Your task to perform on an android device: open device folders in google photos Image 0: 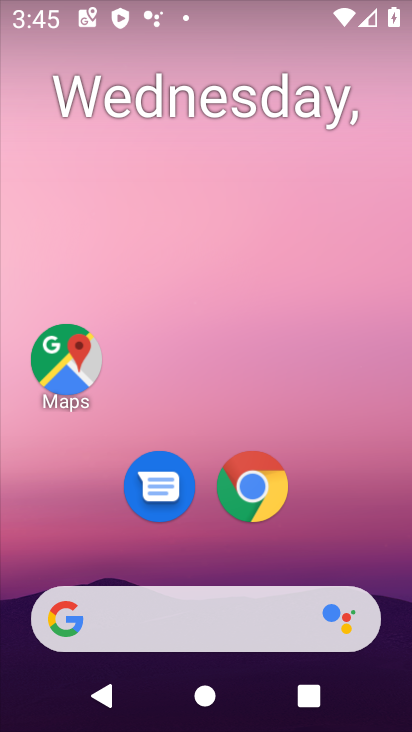
Step 0: drag from (238, 561) to (242, 181)
Your task to perform on an android device: open device folders in google photos Image 1: 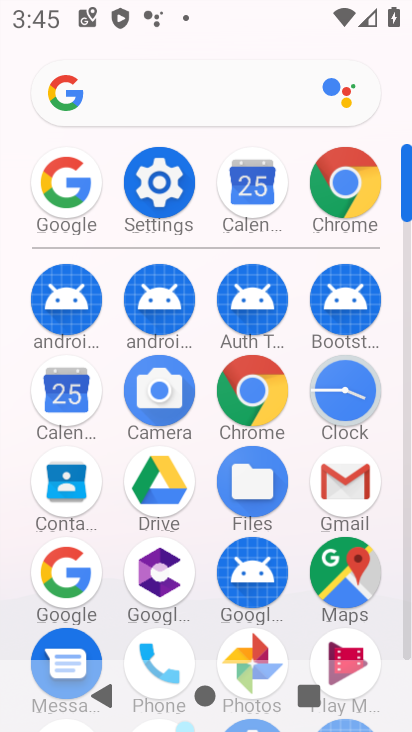
Step 1: click (277, 653)
Your task to perform on an android device: open device folders in google photos Image 2: 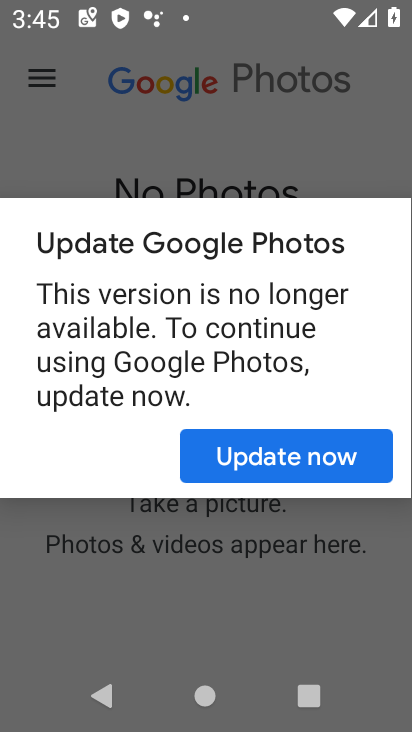
Step 2: click (232, 452)
Your task to perform on an android device: open device folders in google photos Image 3: 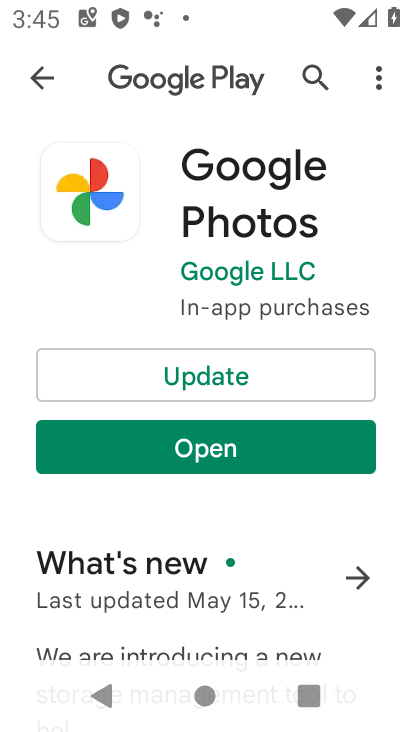
Step 3: click (209, 381)
Your task to perform on an android device: open device folders in google photos Image 4: 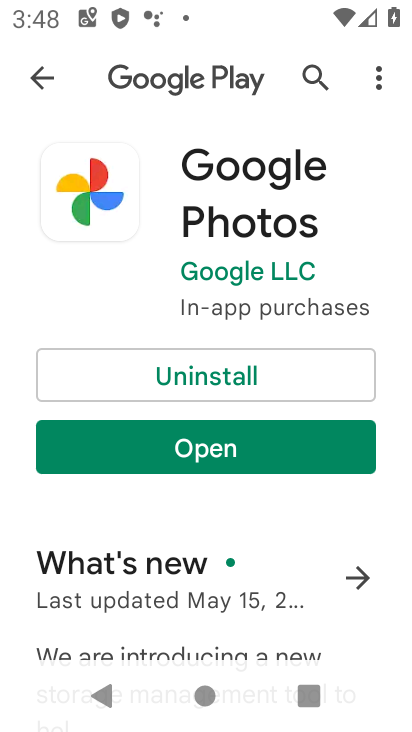
Step 4: click (220, 452)
Your task to perform on an android device: open device folders in google photos Image 5: 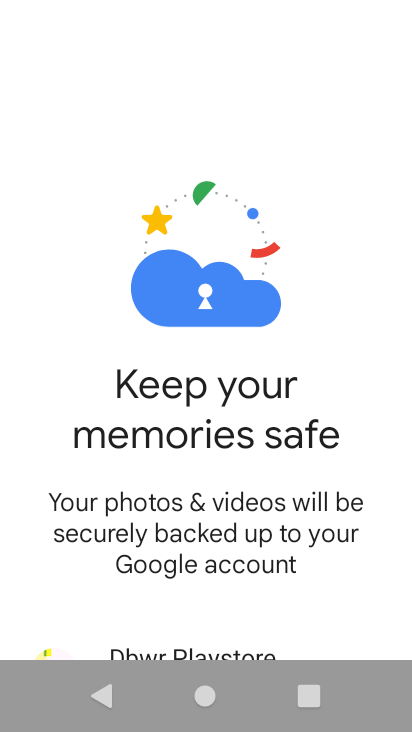
Step 5: drag from (202, 630) to (310, 134)
Your task to perform on an android device: open device folders in google photos Image 6: 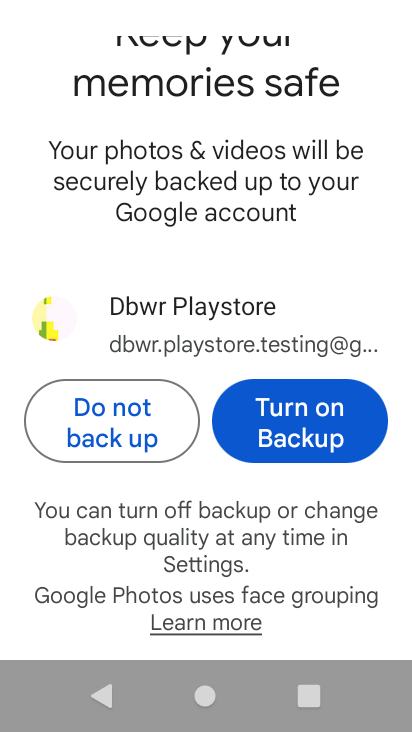
Step 6: click (302, 434)
Your task to perform on an android device: open device folders in google photos Image 7: 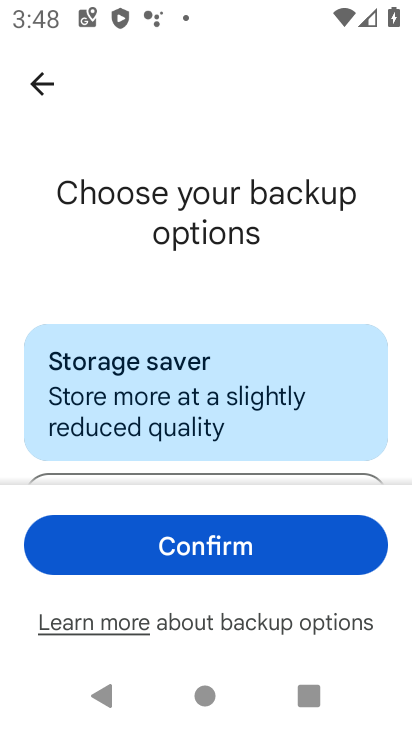
Step 7: click (234, 557)
Your task to perform on an android device: open device folders in google photos Image 8: 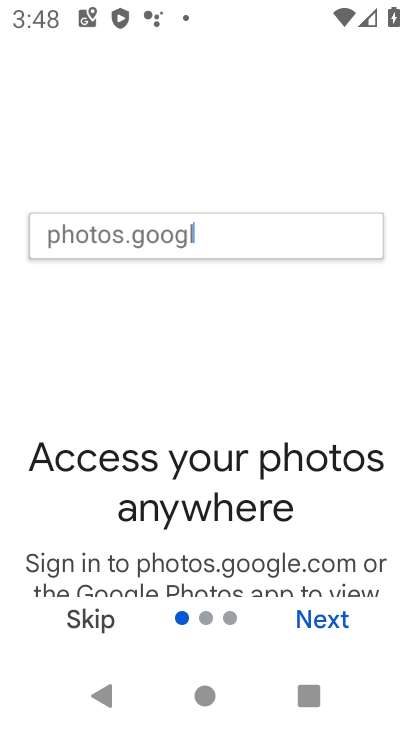
Step 8: click (297, 613)
Your task to perform on an android device: open device folders in google photos Image 9: 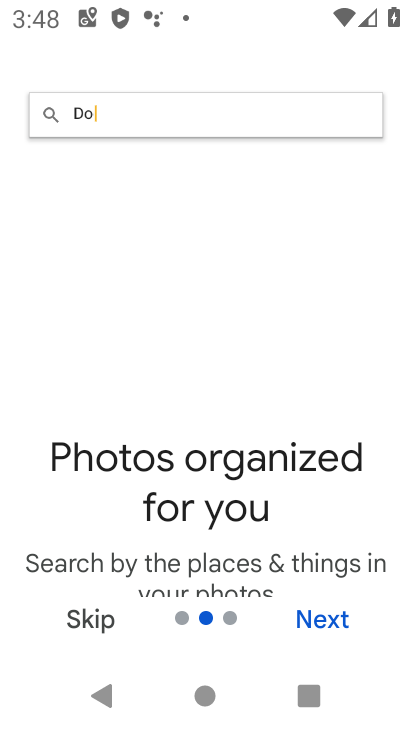
Step 9: click (297, 613)
Your task to perform on an android device: open device folders in google photos Image 10: 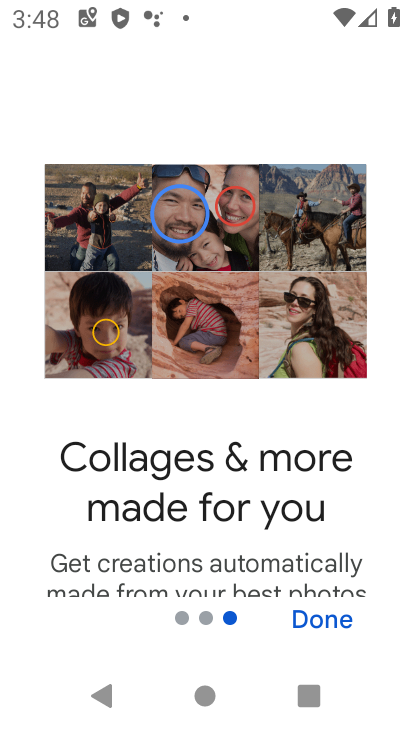
Step 10: click (297, 613)
Your task to perform on an android device: open device folders in google photos Image 11: 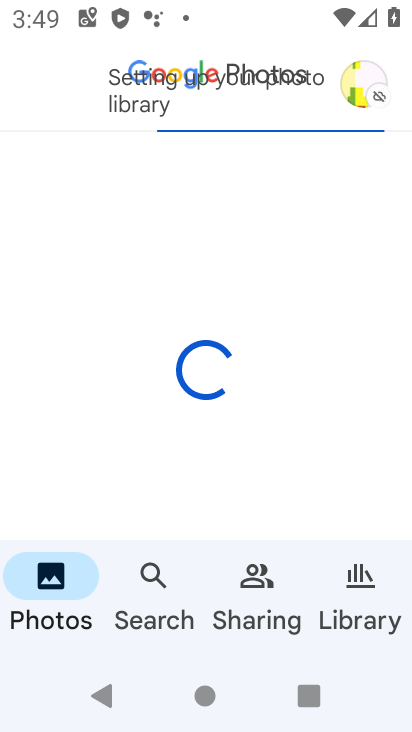
Step 11: click (297, 613)
Your task to perform on an android device: open device folders in google photos Image 12: 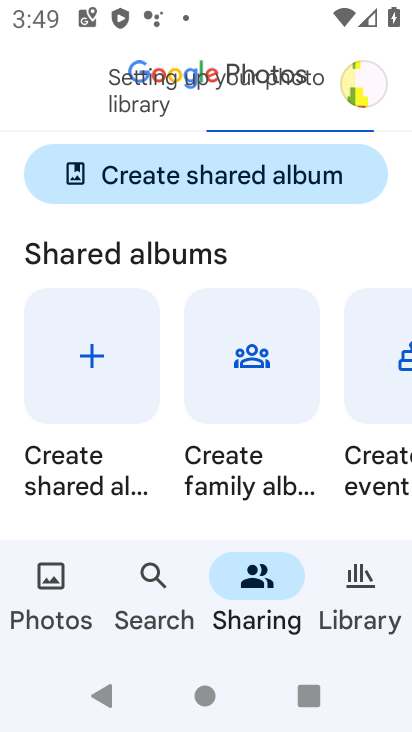
Step 12: click (372, 105)
Your task to perform on an android device: open device folders in google photos Image 13: 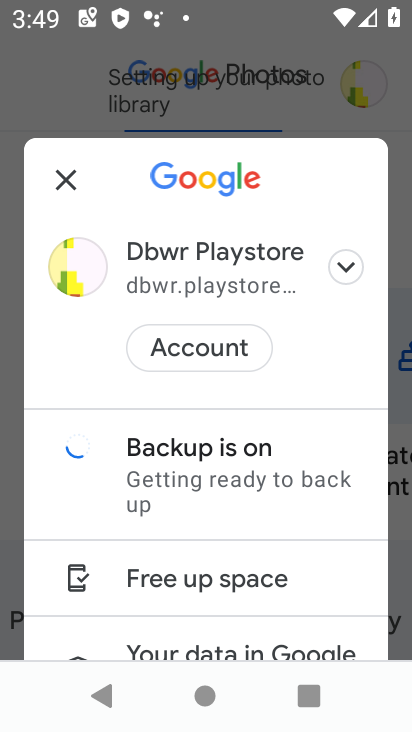
Step 13: drag from (198, 584) to (253, 231)
Your task to perform on an android device: open device folders in google photos Image 14: 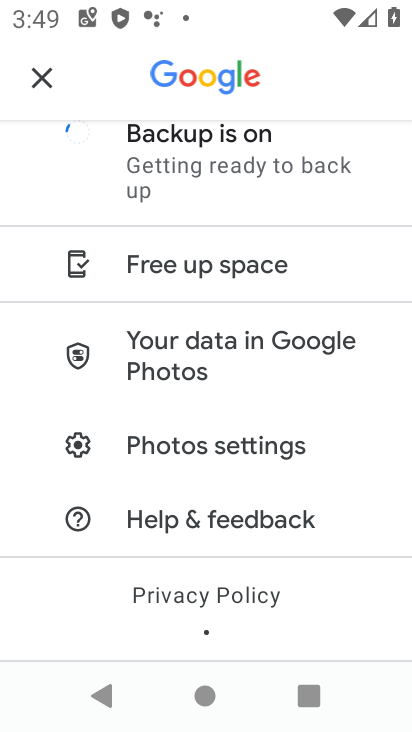
Step 14: click (179, 440)
Your task to perform on an android device: open device folders in google photos Image 15: 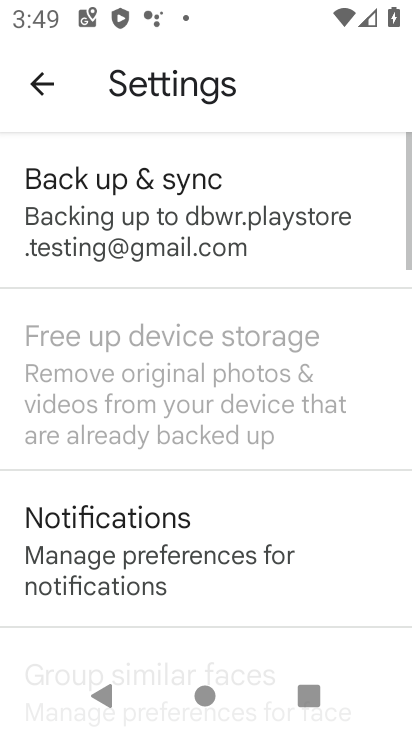
Step 15: task complete